Your task to perform on an android device: Add acer predator to the cart on costco Image 0: 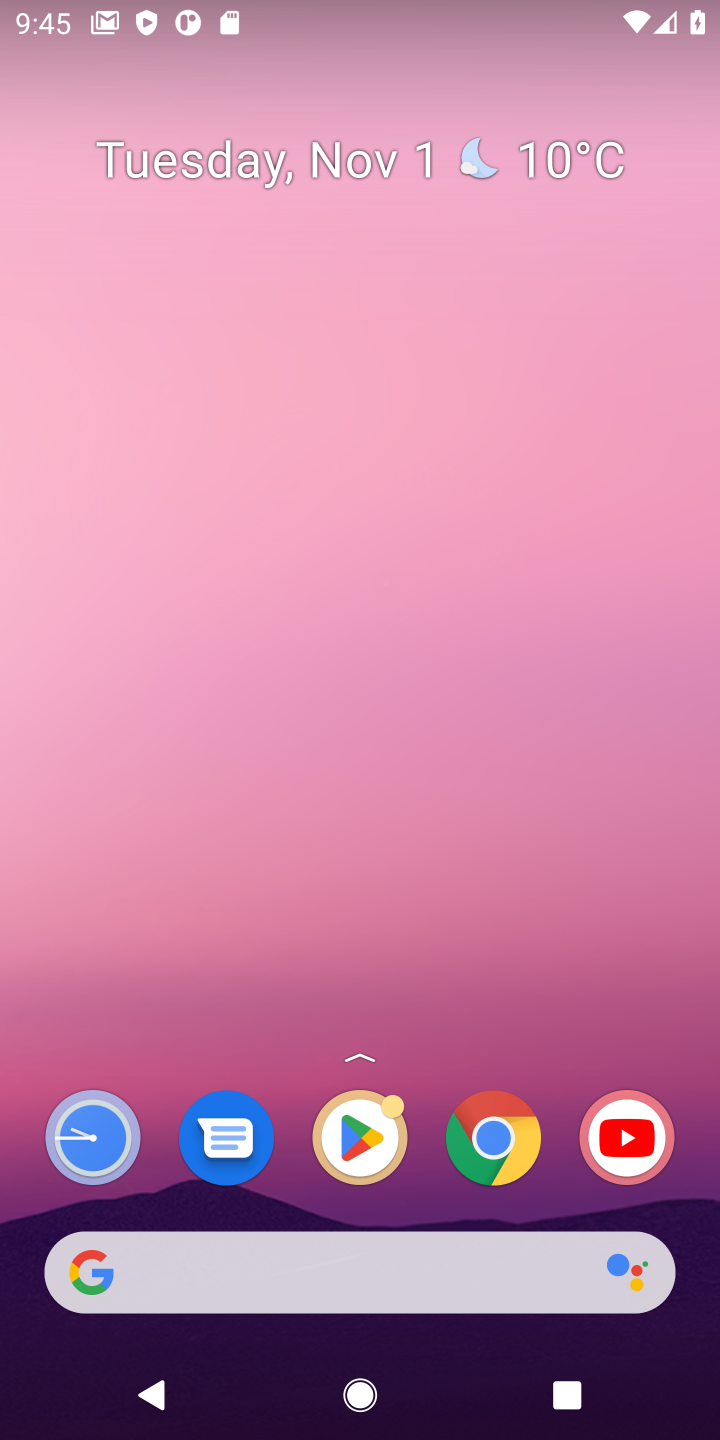
Step 0: click (604, 199)
Your task to perform on an android device: Add acer predator to the cart on costco Image 1: 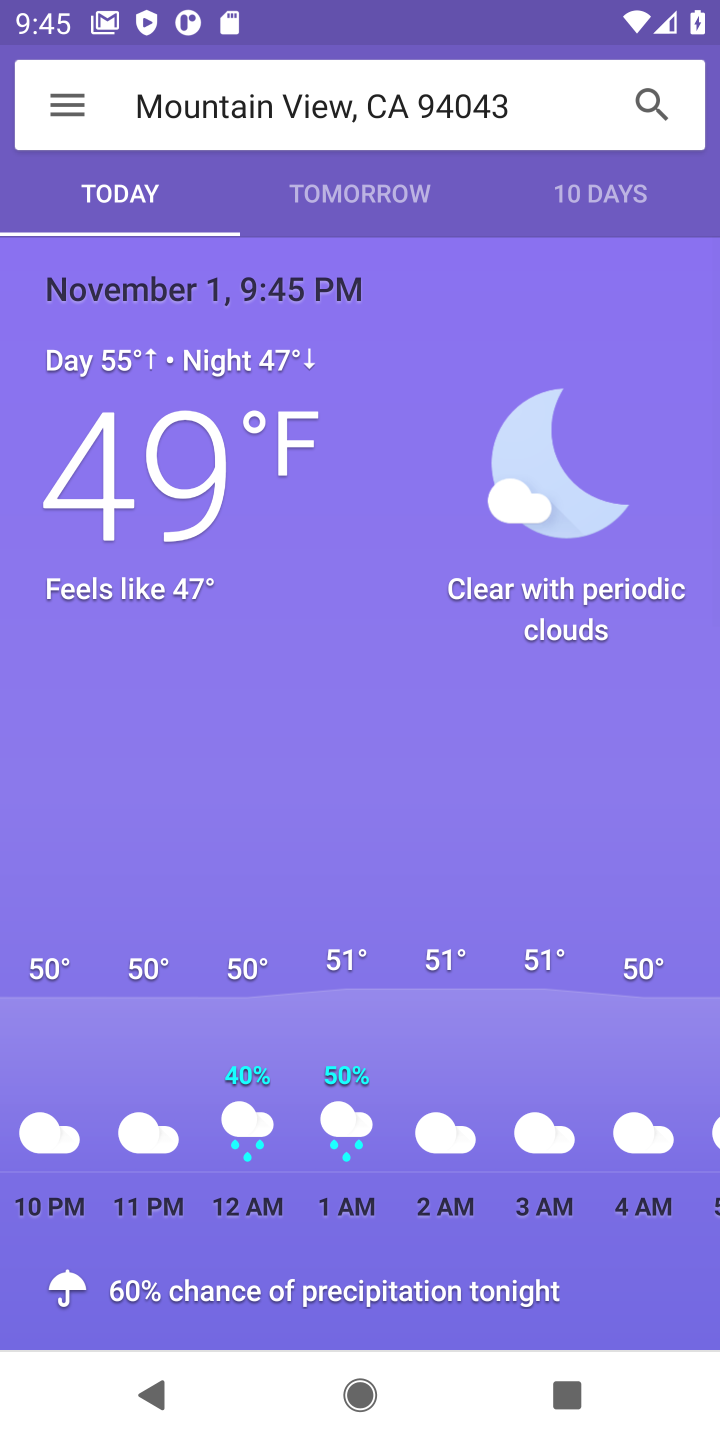
Step 1: press home button
Your task to perform on an android device: Add acer predator to the cart on costco Image 2: 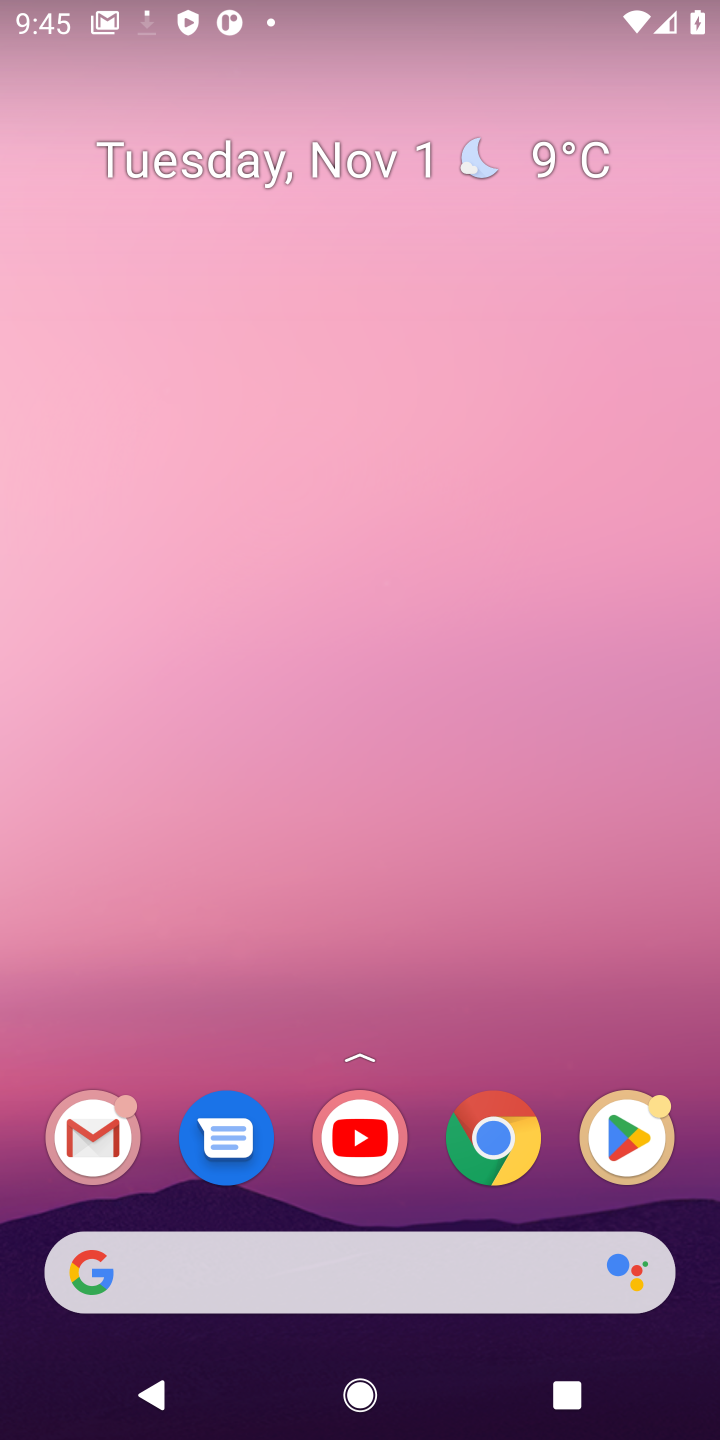
Step 2: click (491, 1160)
Your task to perform on an android device: Add acer predator to the cart on costco Image 3: 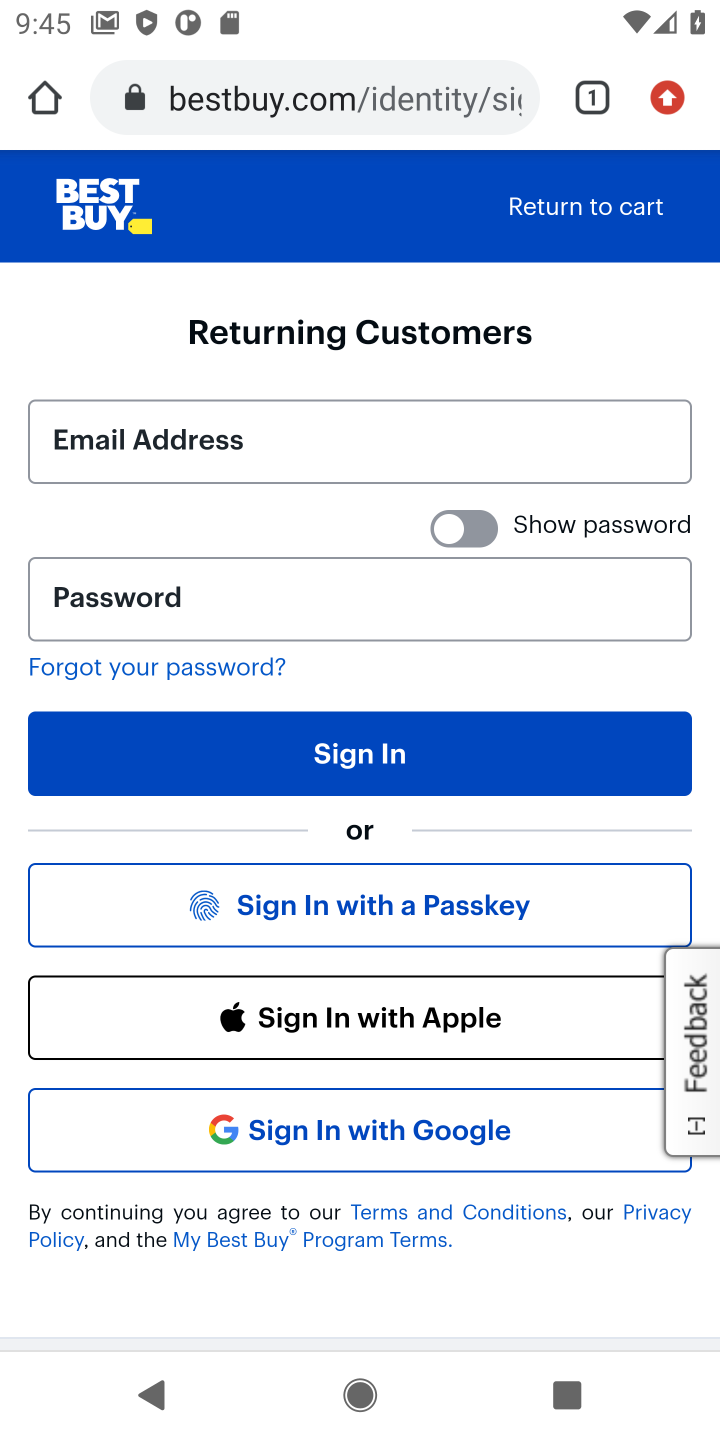
Step 3: click (599, 87)
Your task to perform on an android device: Add acer predator to the cart on costco Image 4: 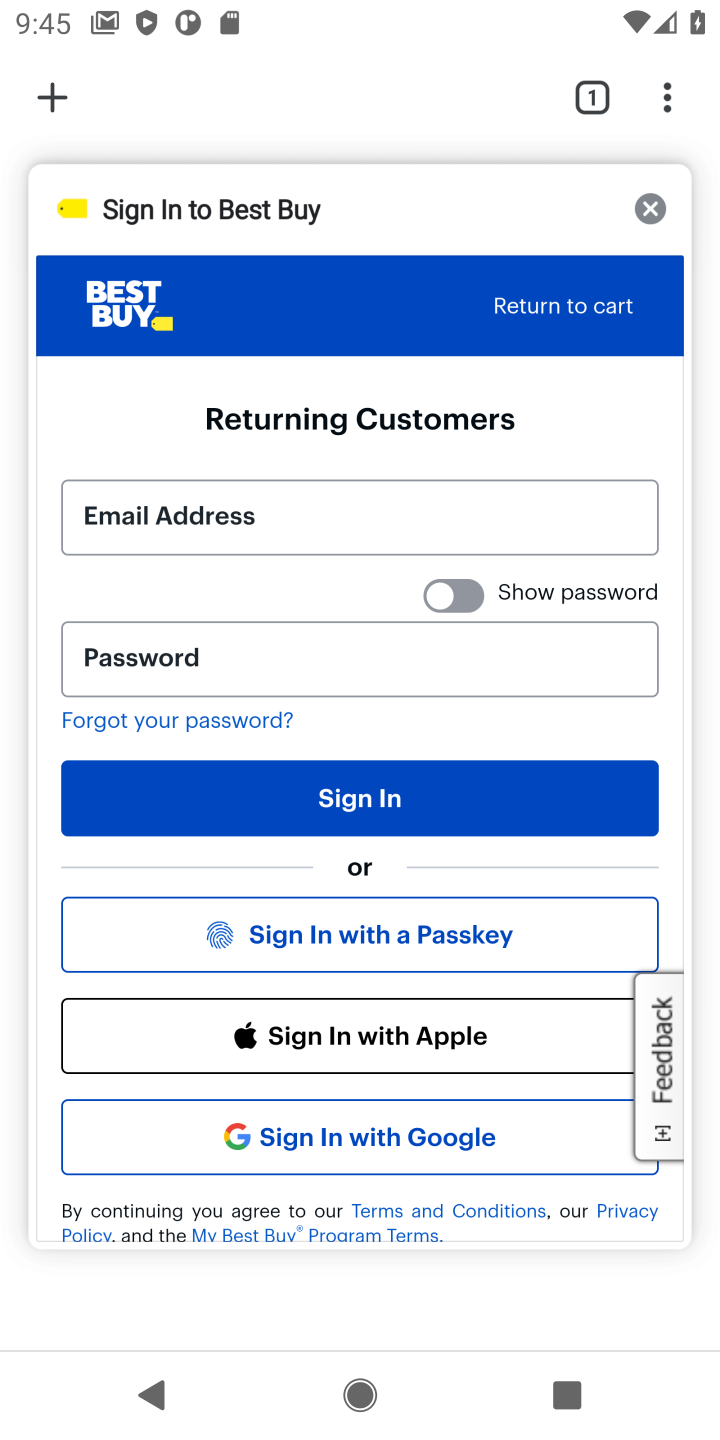
Step 4: click (51, 108)
Your task to perform on an android device: Add acer predator to the cart on costco Image 5: 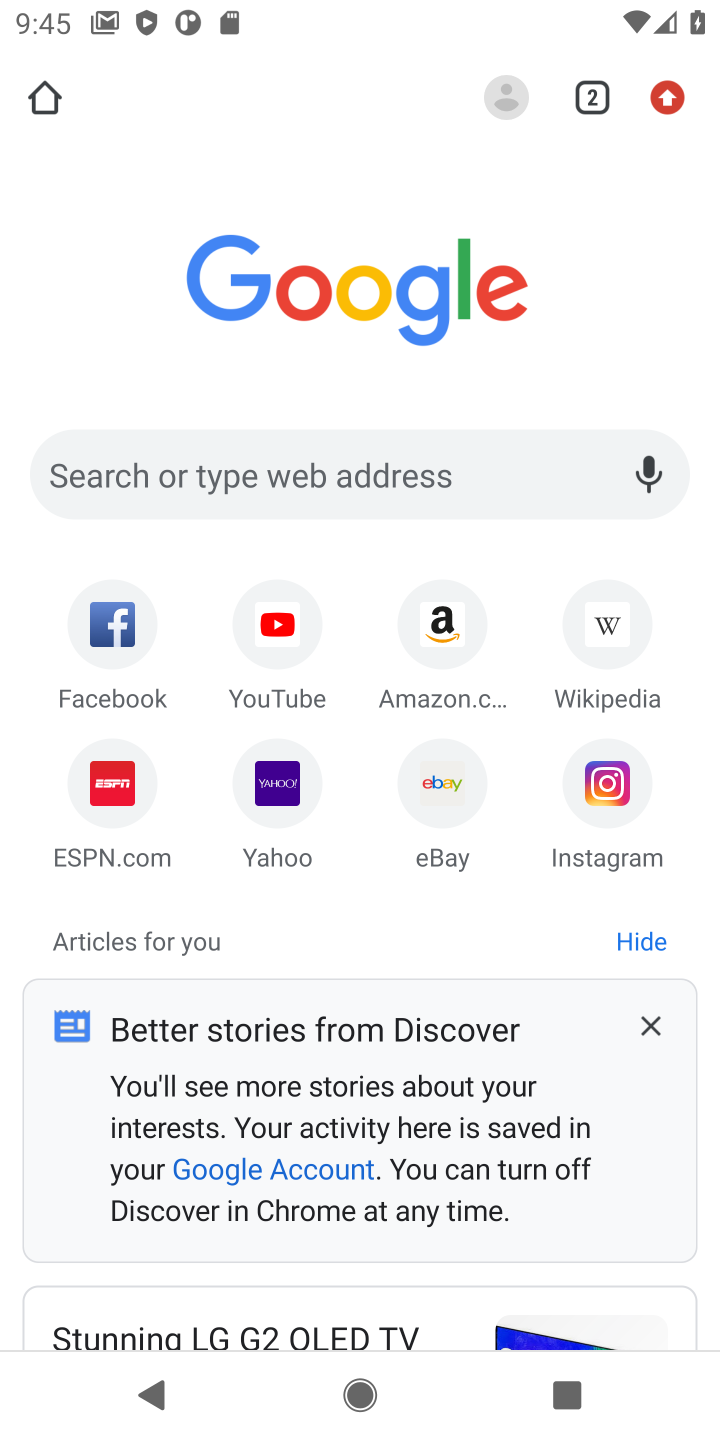
Step 5: click (457, 443)
Your task to perform on an android device: Add acer predator to the cart on costco Image 6: 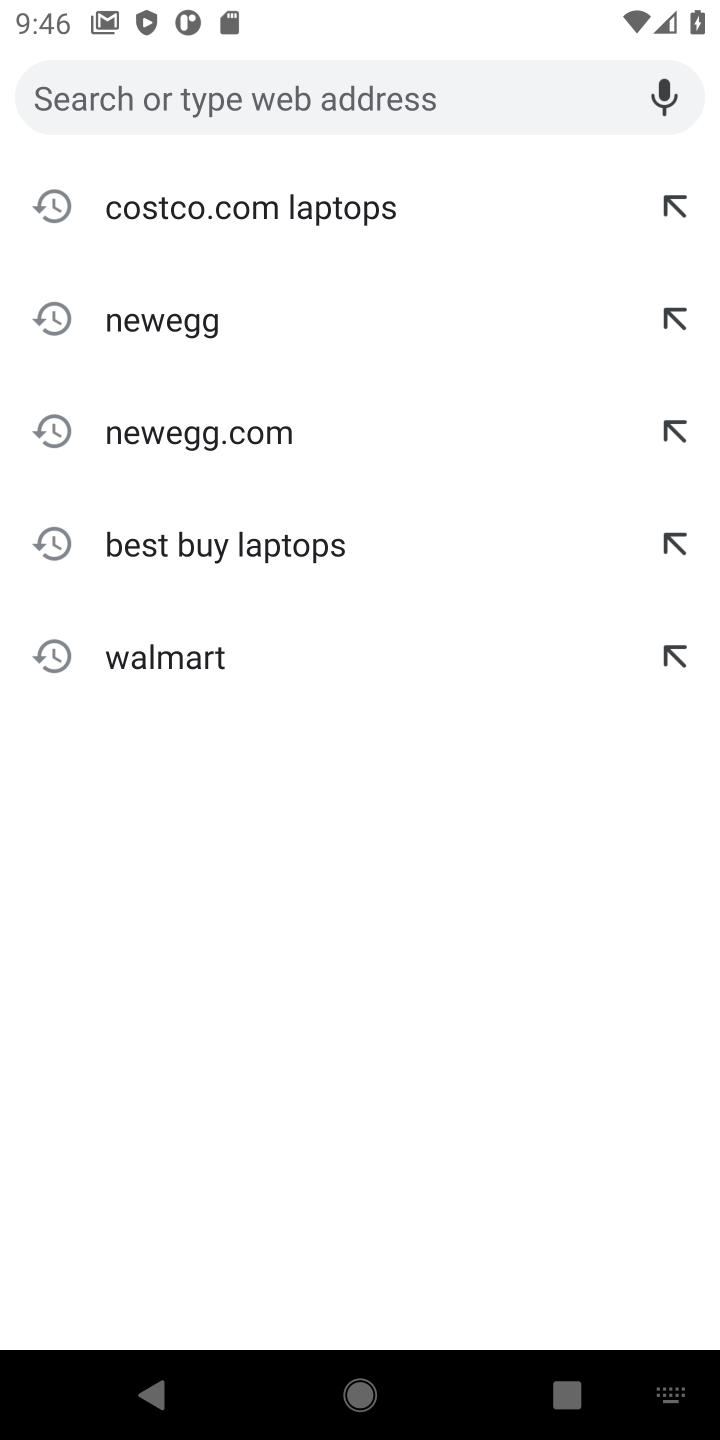
Step 6: click (234, 197)
Your task to perform on an android device: Add acer predator to the cart on costco Image 7: 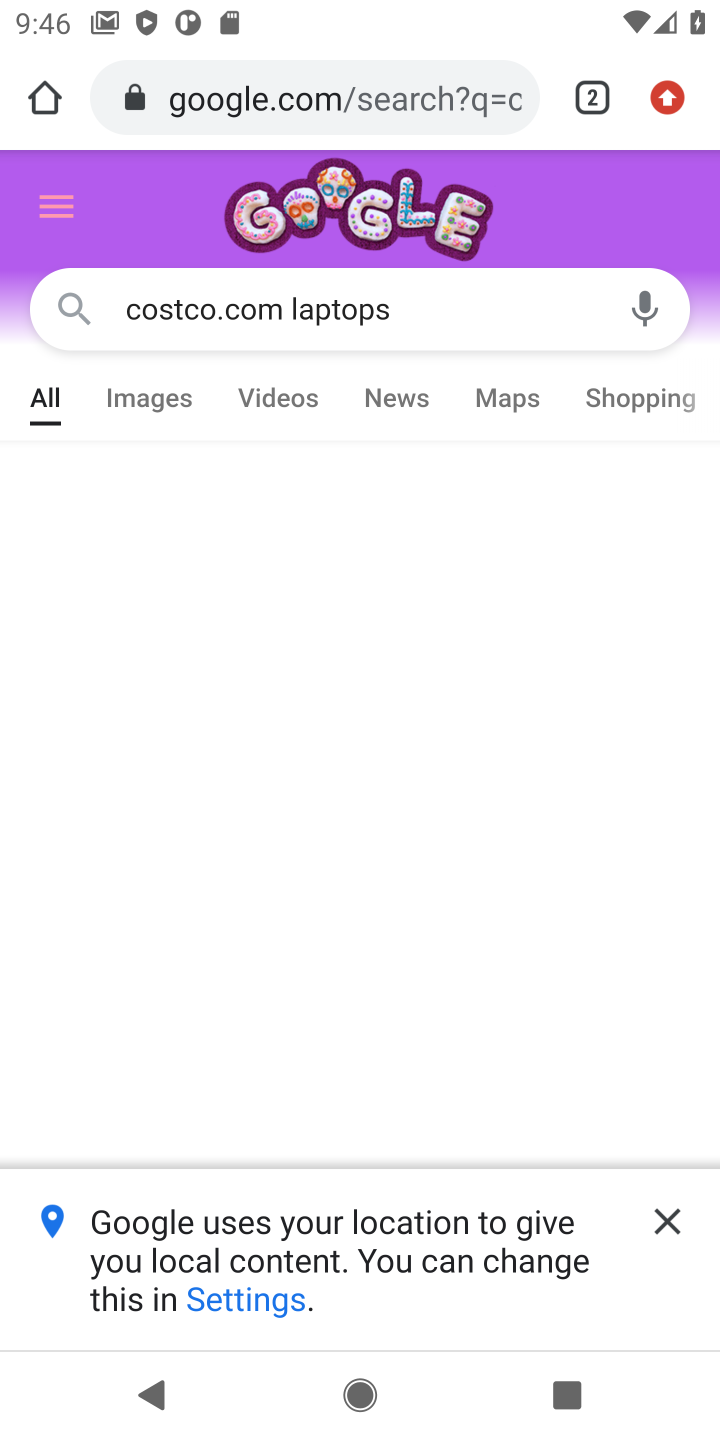
Step 7: click (675, 1217)
Your task to perform on an android device: Add acer predator to the cart on costco Image 8: 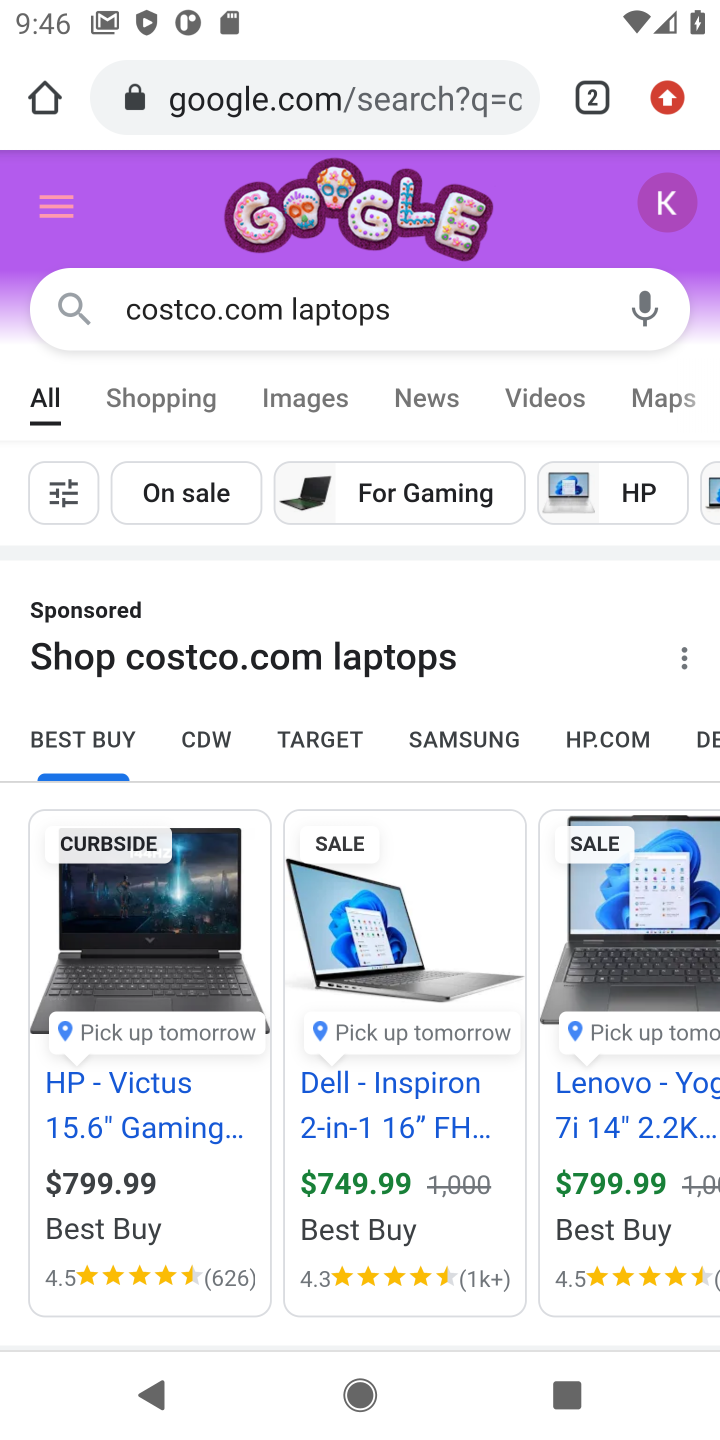
Step 8: drag from (457, 1110) to (493, 535)
Your task to perform on an android device: Add acer predator to the cart on costco Image 9: 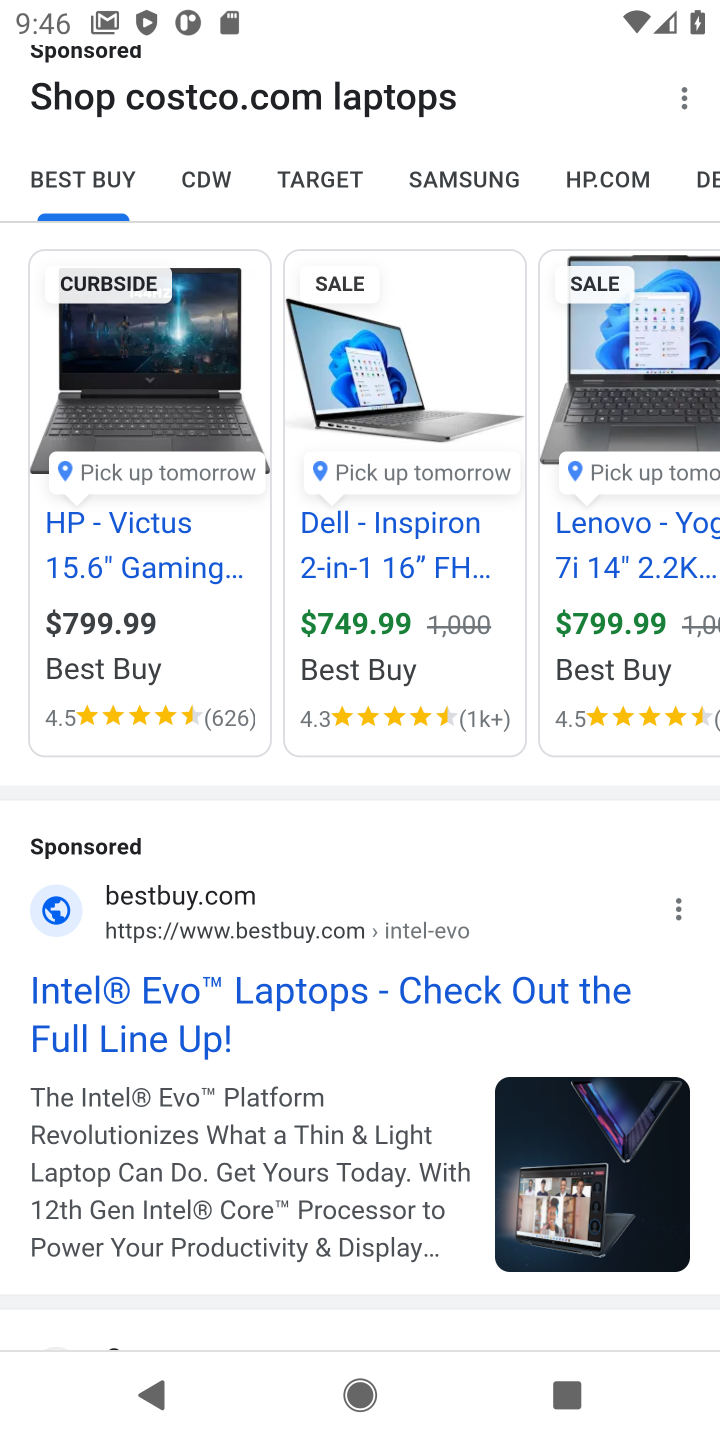
Step 9: drag from (250, 1097) to (358, 297)
Your task to perform on an android device: Add acer predator to the cart on costco Image 10: 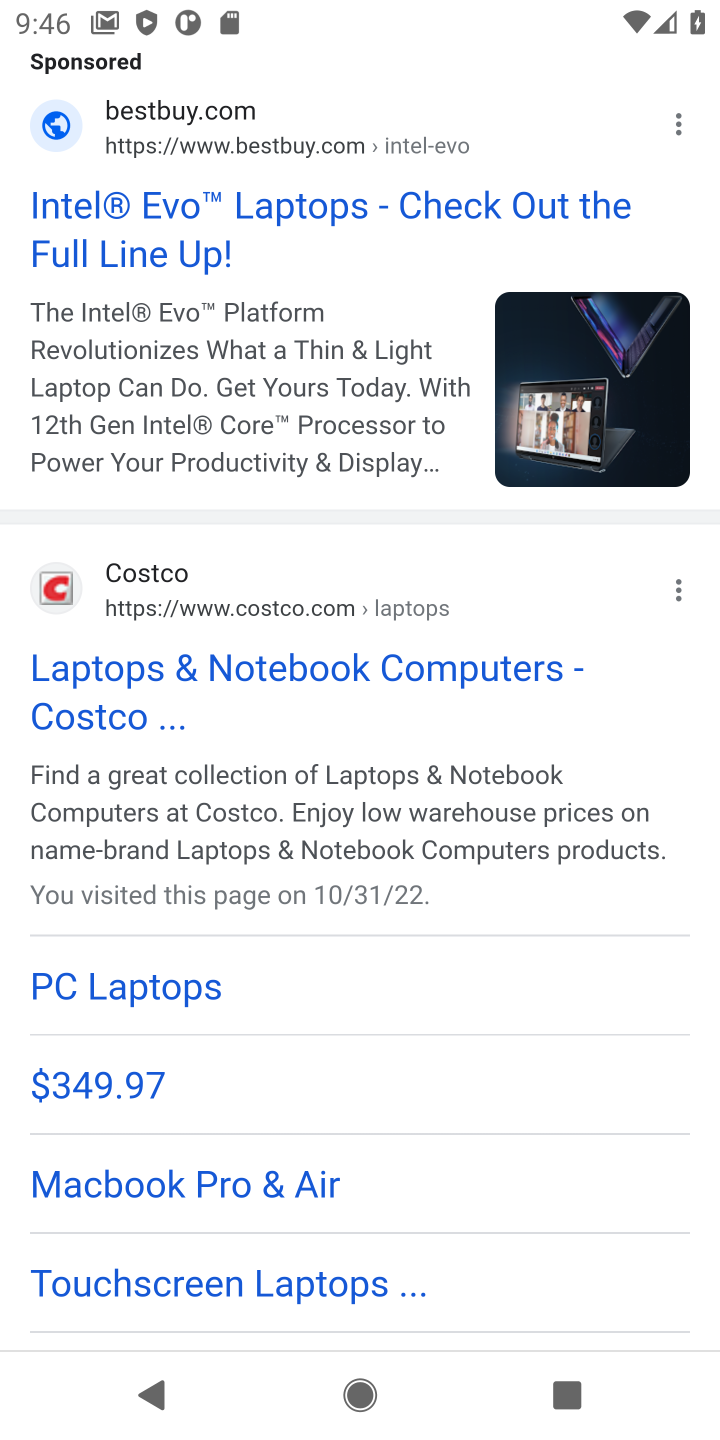
Step 10: click (243, 668)
Your task to perform on an android device: Add acer predator to the cart on costco Image 11: 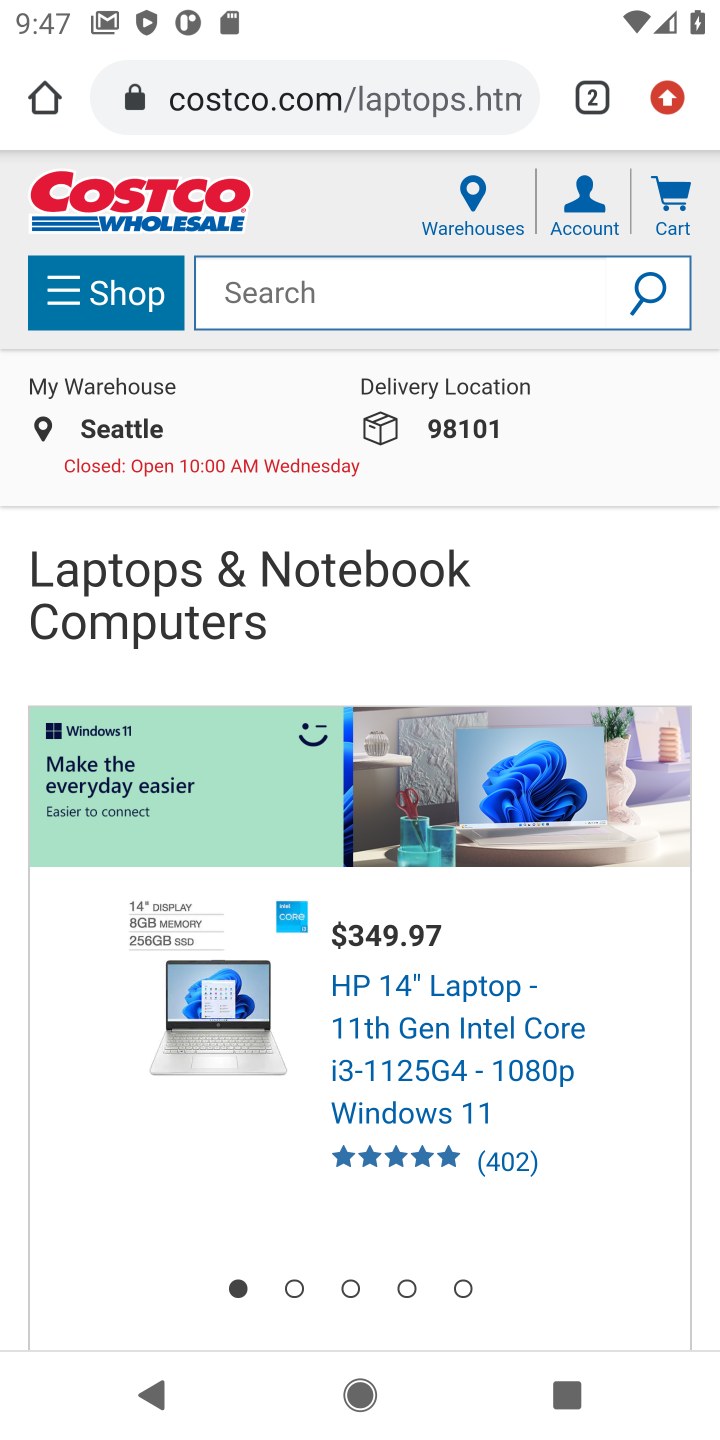
Step 11: click (307, 300)
Your task to perform on an android device: Add acer predator to the cart on costco Image 12: 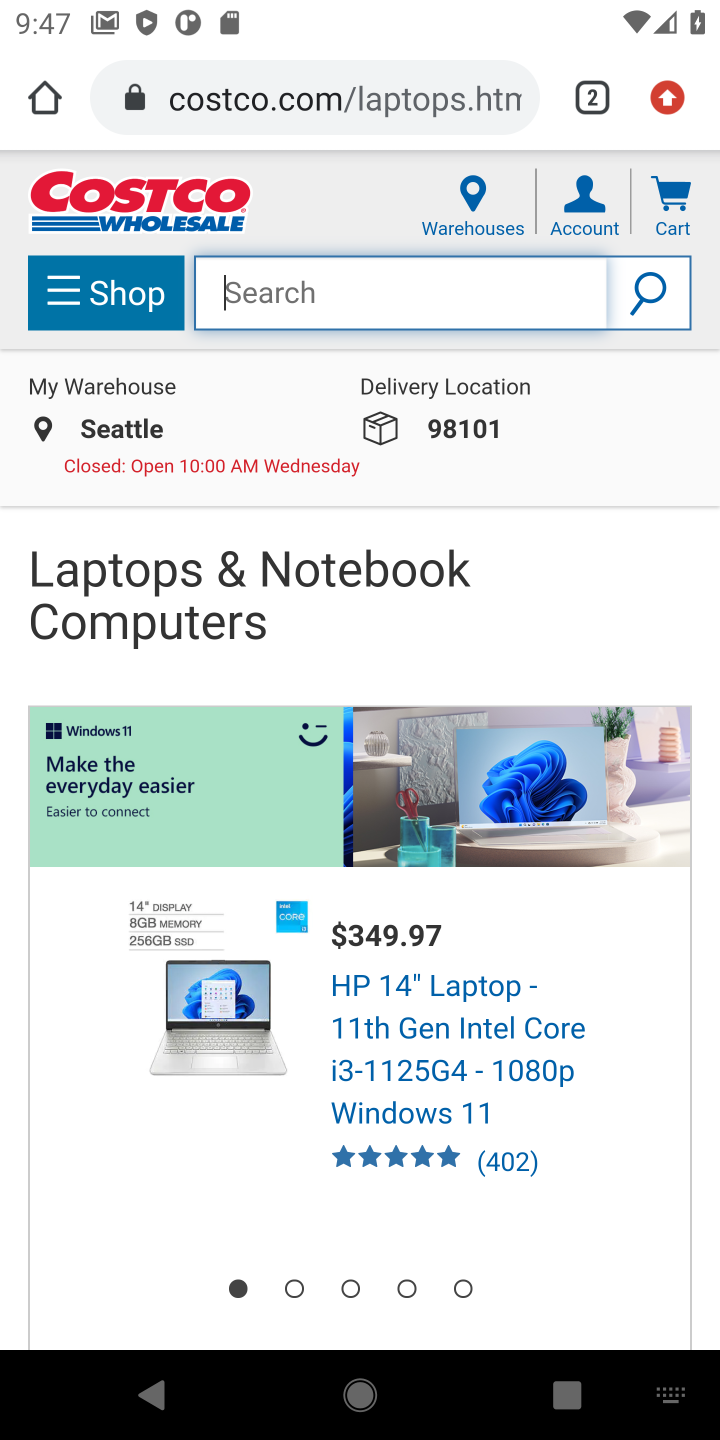
Step 12: type "acer predator"
Your task to perform on an android device: Add acer predator to the cart on costco Image 13: 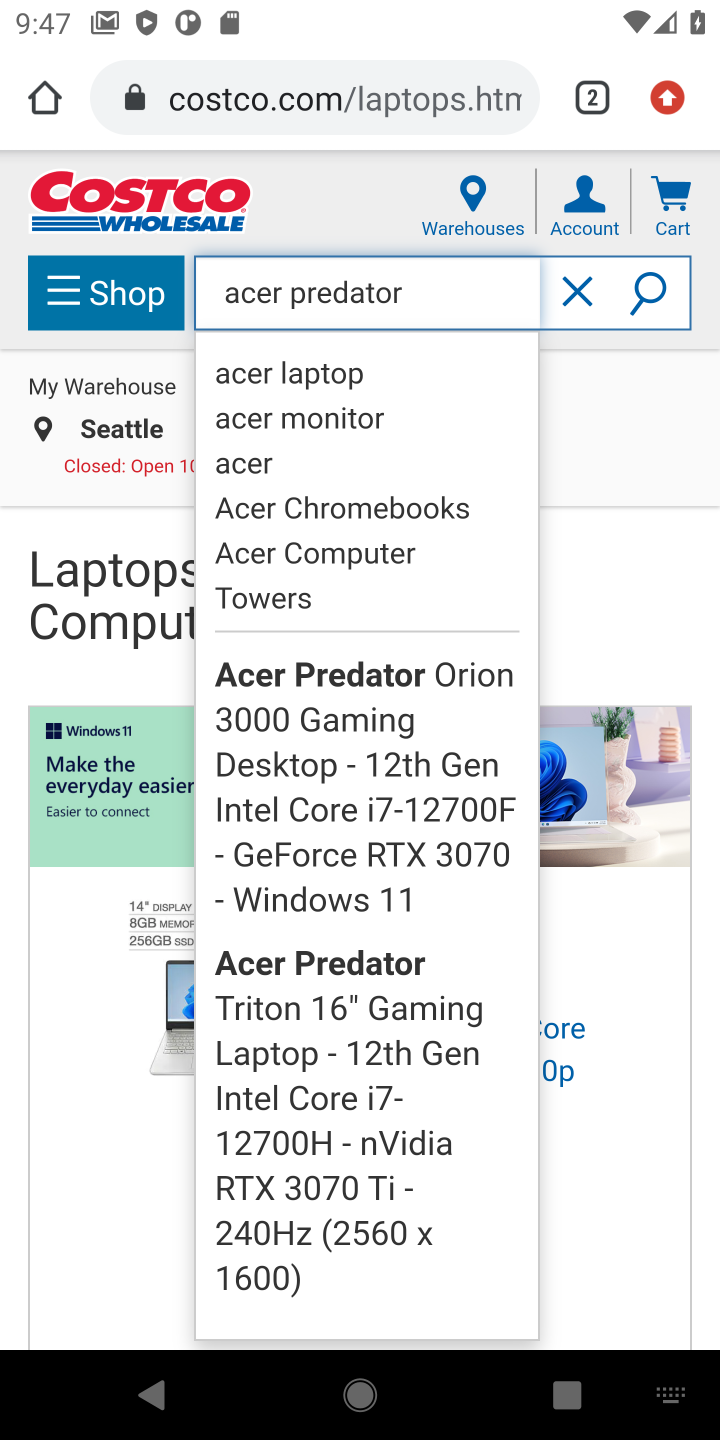
Step 13: click (300, 376)
Your task to perform on an android device: Add acer predator to the cart on costco Image 14: 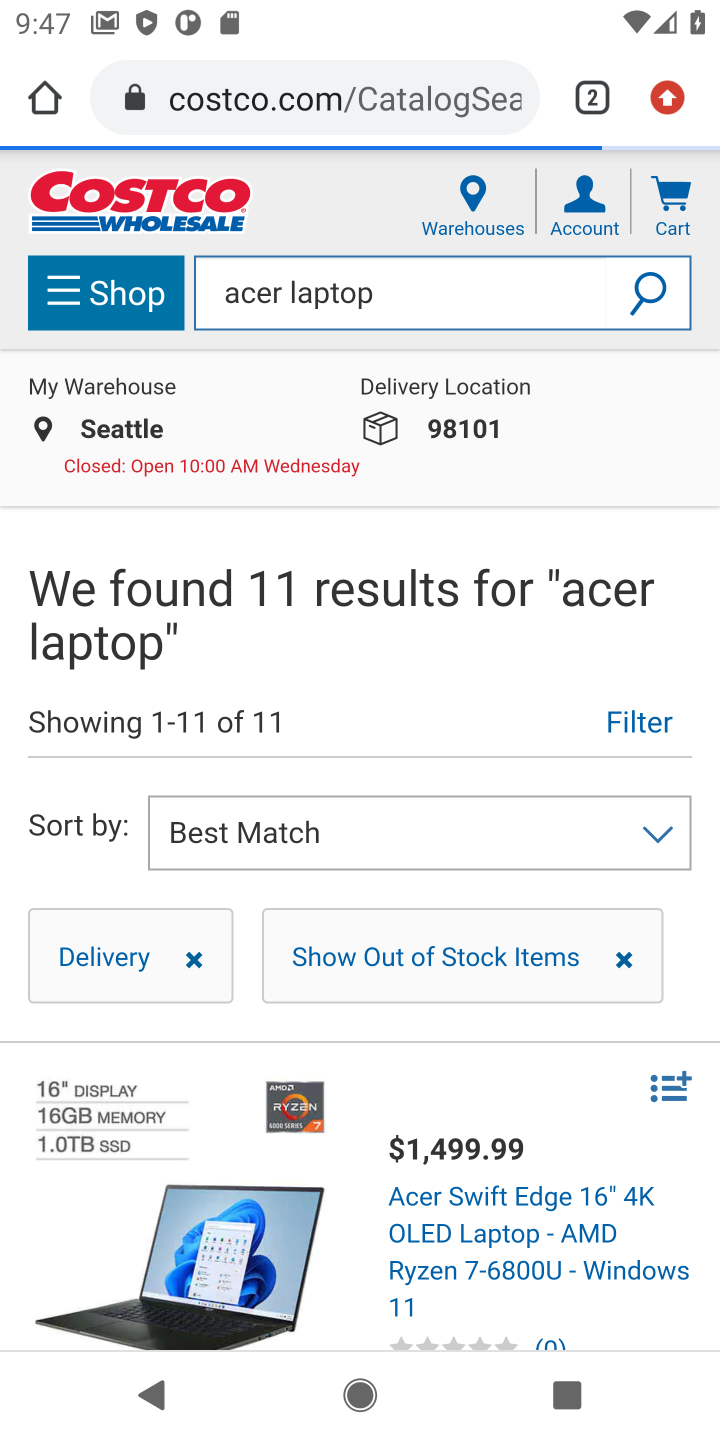
Step 14: drag from (485, 1201) to (494, 351)
Your task to perform on an android device: Add acer predator to the cart on costco Image 15: 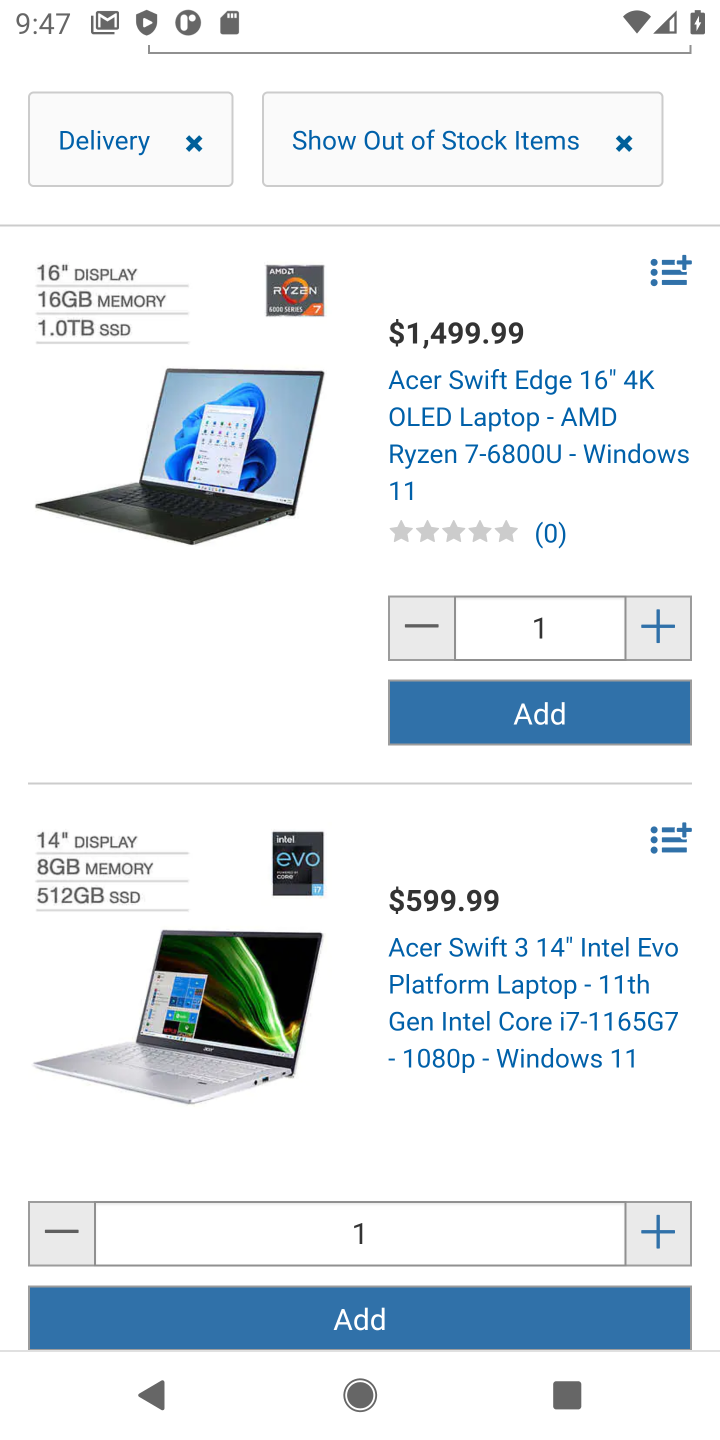
Step 15: click (554, 706)
Your task to perform on an android device: Add acer predator to the cart on costco Image 16: 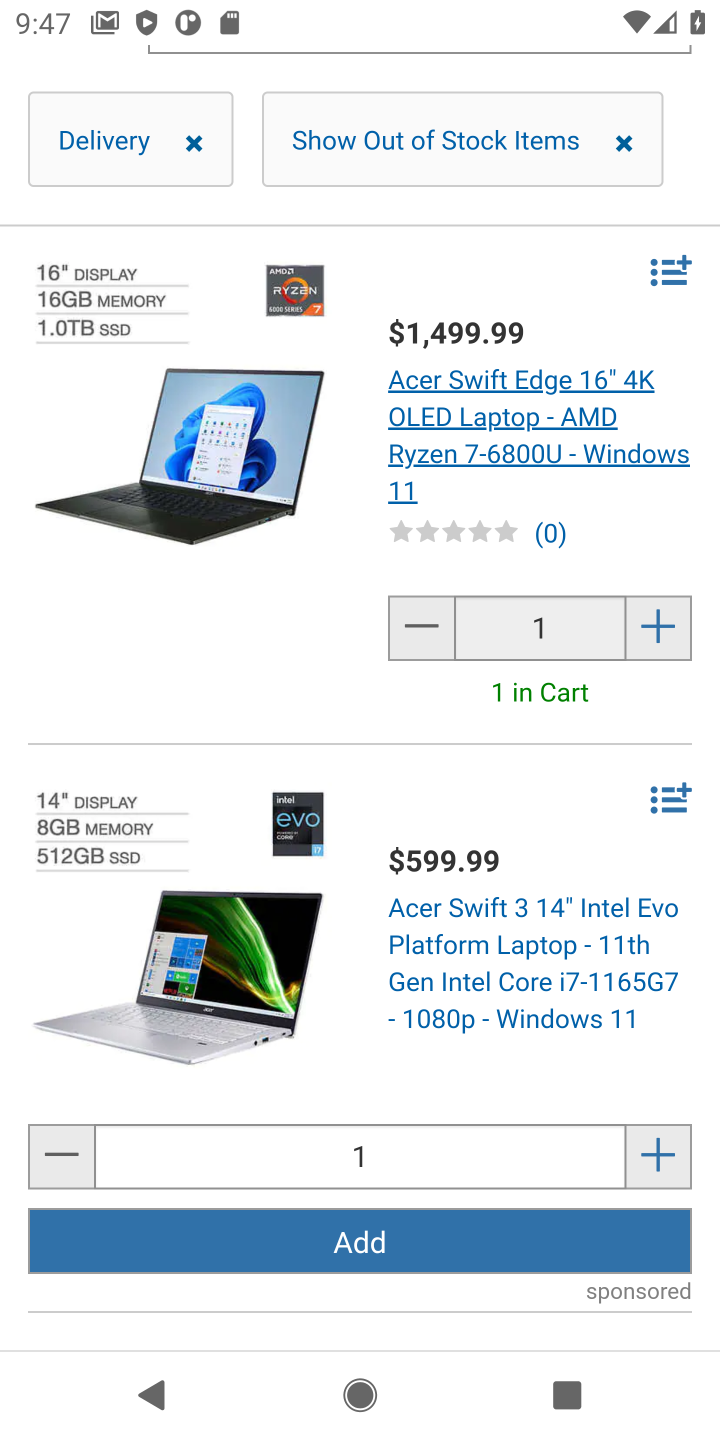
Step 16: task complete